Your task to perform on an android device: move an email to a new category in the gmail app Image 0: 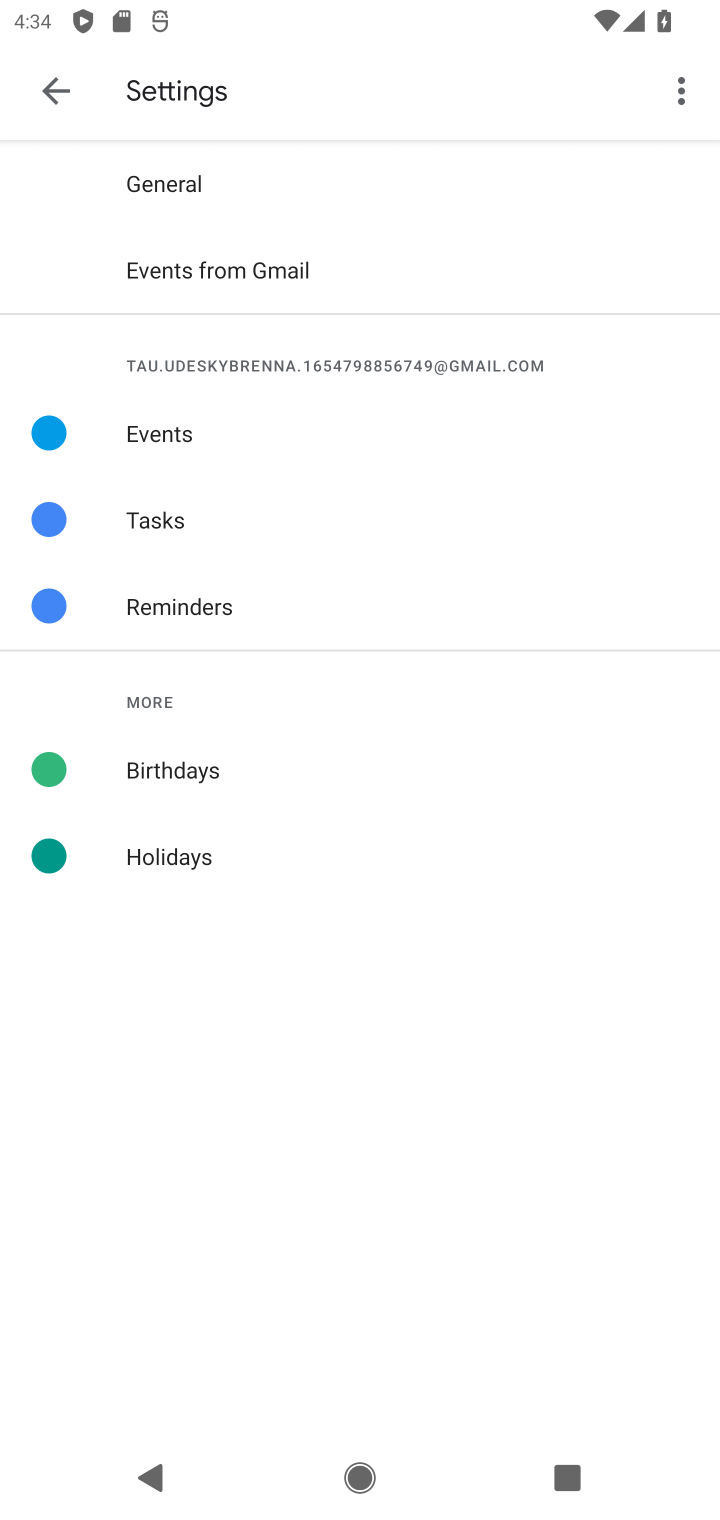
Step 0: press home button
Your task to perform on an android device: move an email to a new category in the gmail app Image 1: 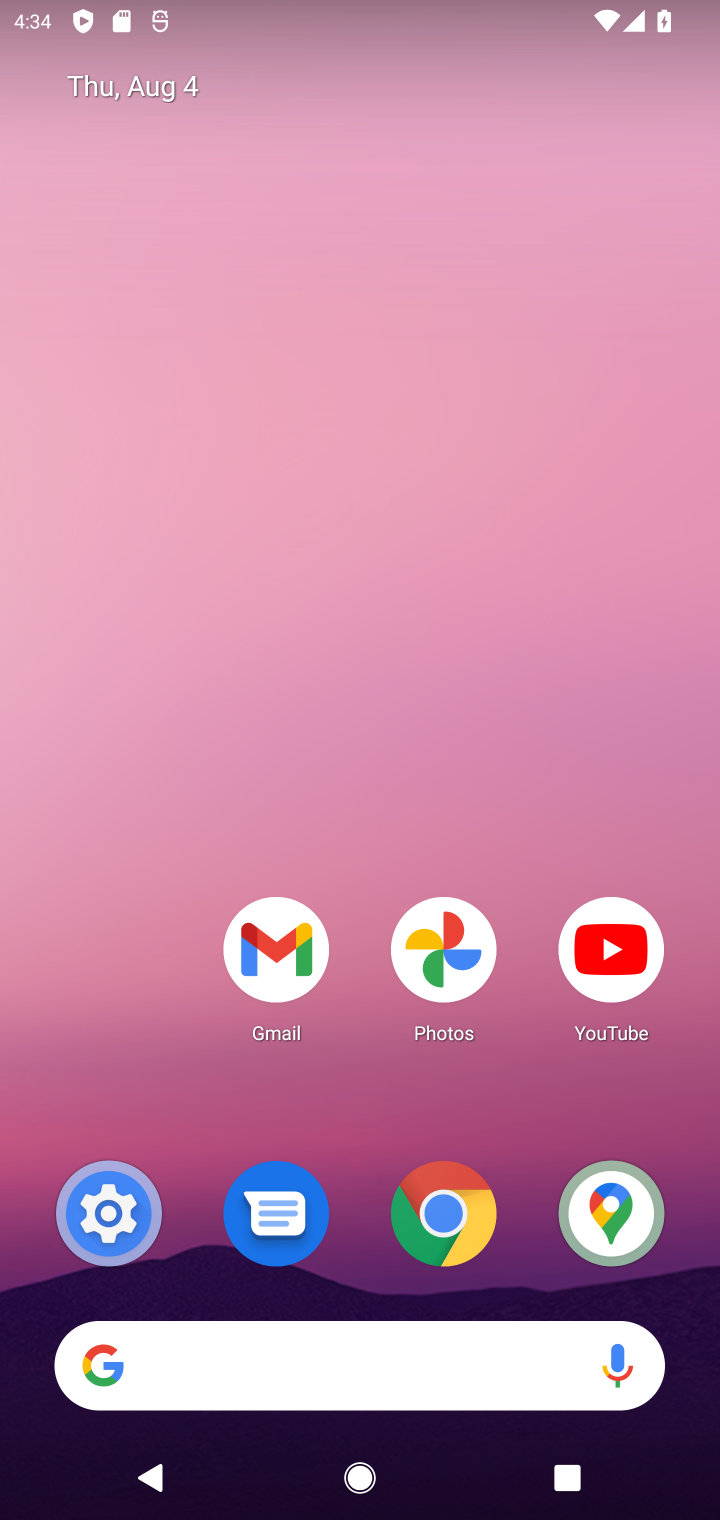
Step 1: drag from (172, 1077) to (169, 493)
Your task to perform on an android device: move an email to a new category in the gmail app Image 2: 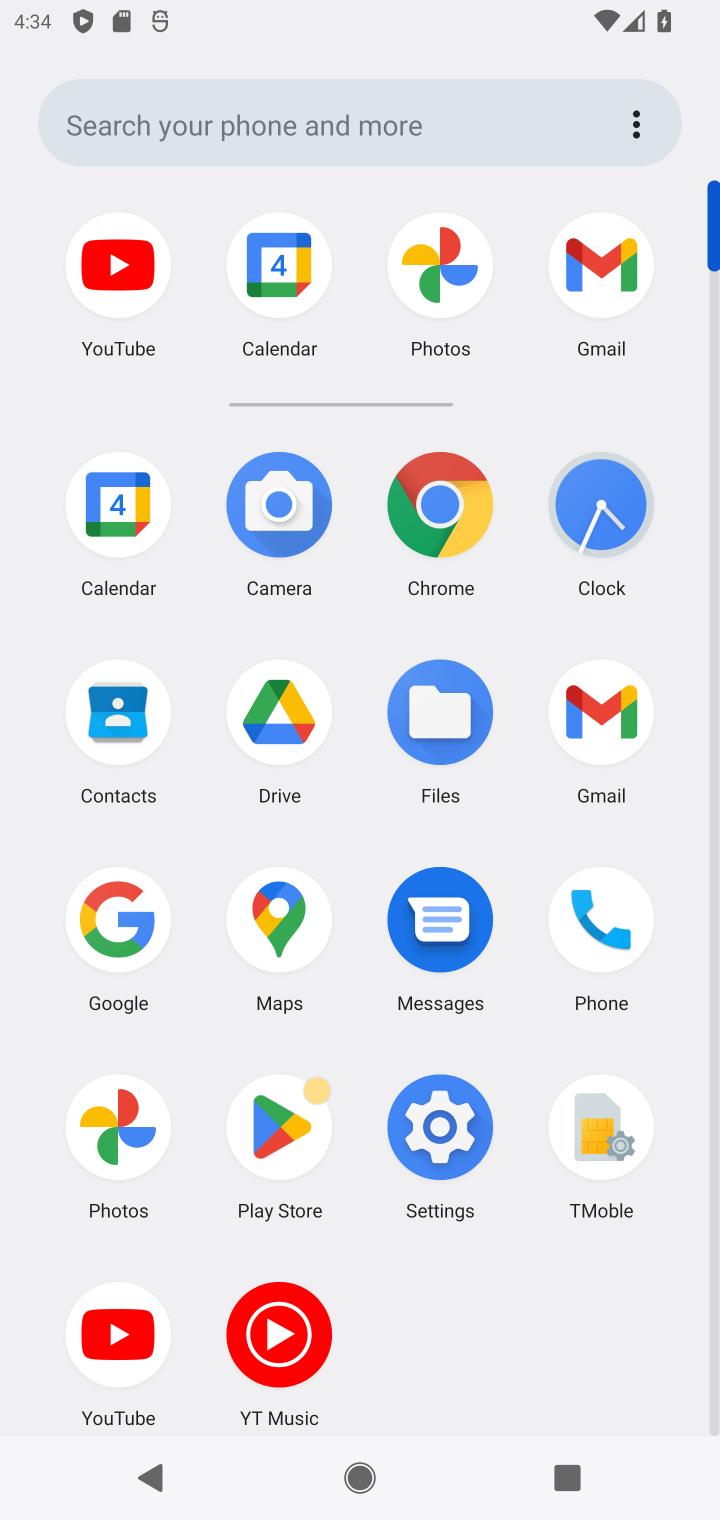
Step 2: click (594, 718)
Your task to perform on an android device: move an email to a new category in the gmail app Image 3: 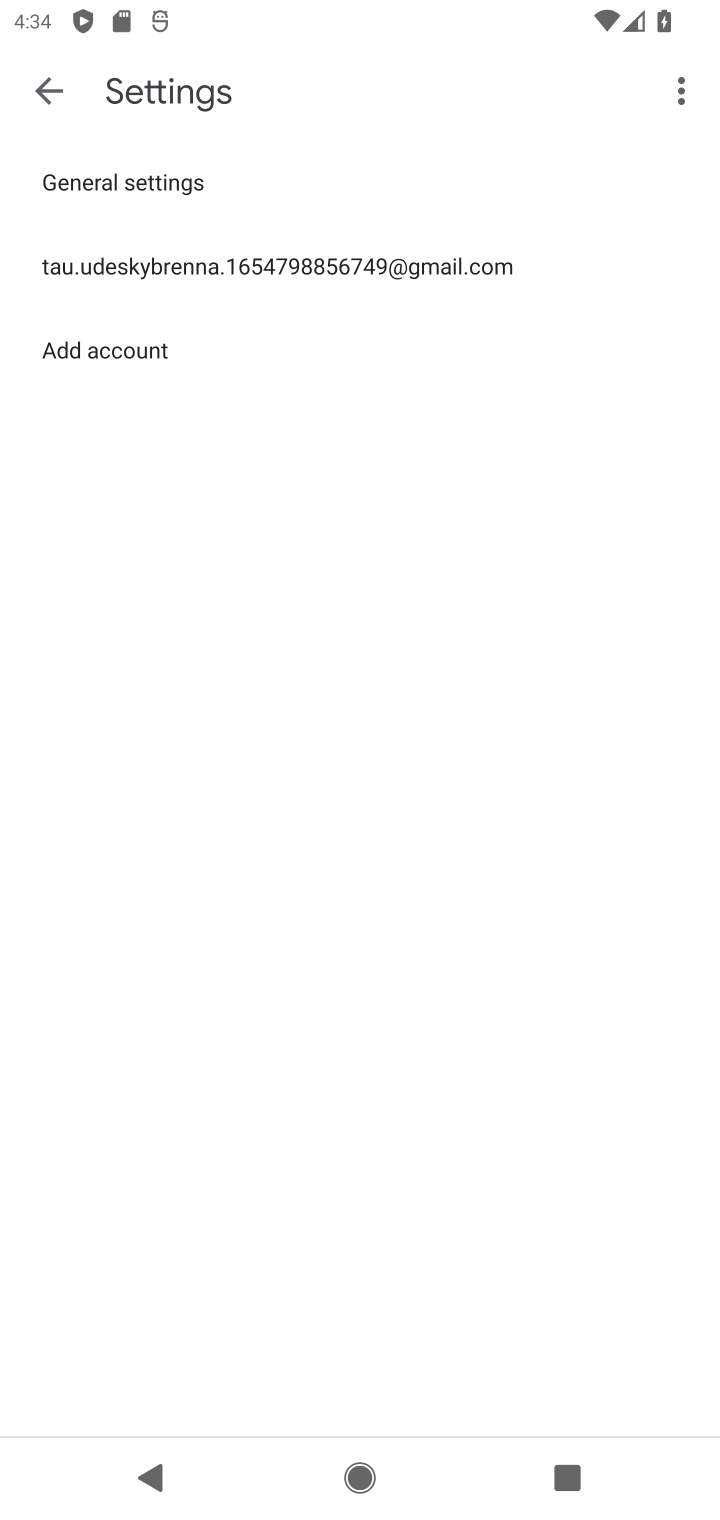
Step 3: press back button
Your task to perform on an android device: move an email to a new category in the gmail app Image 4: 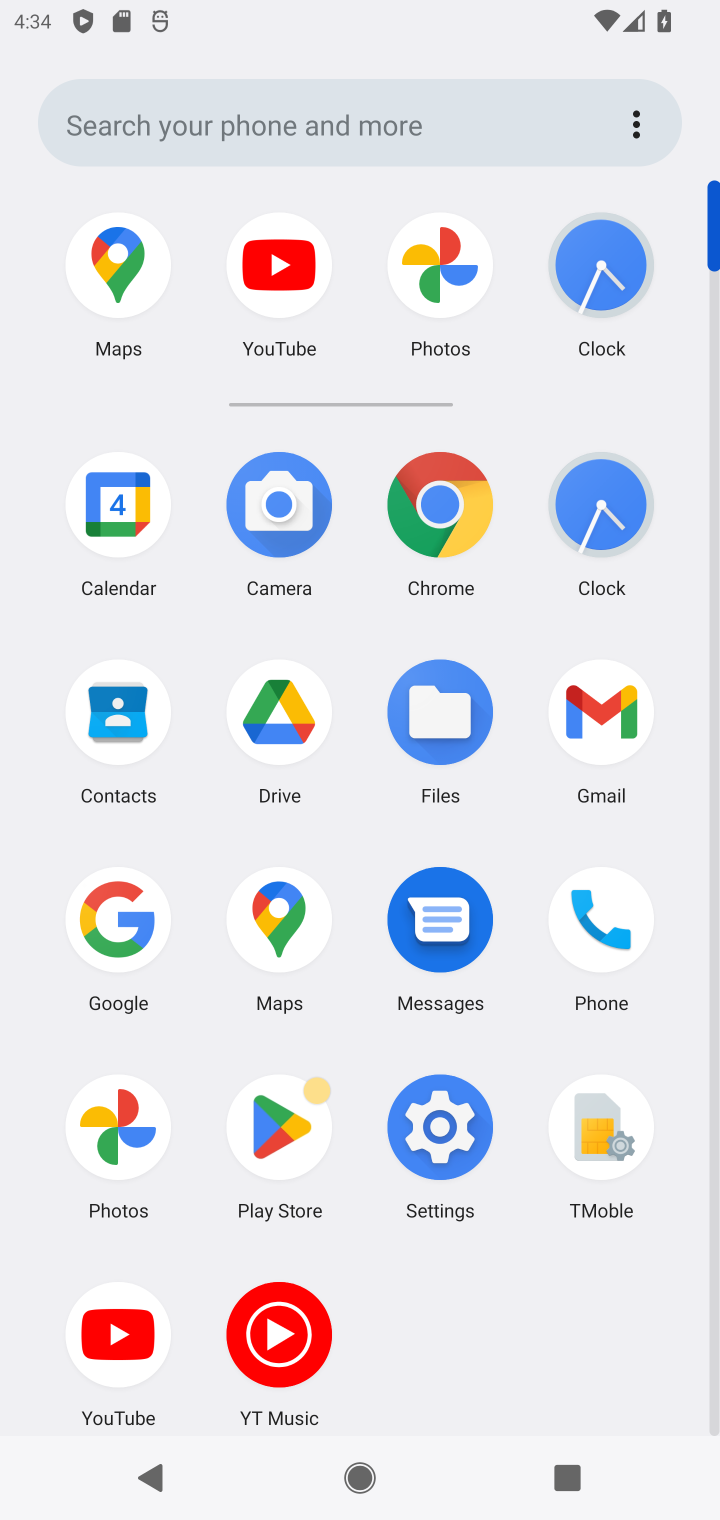
Step 4: click (620, 724)
Your task to perform on an android device: move an email to a new category in the gmail app Image 5: 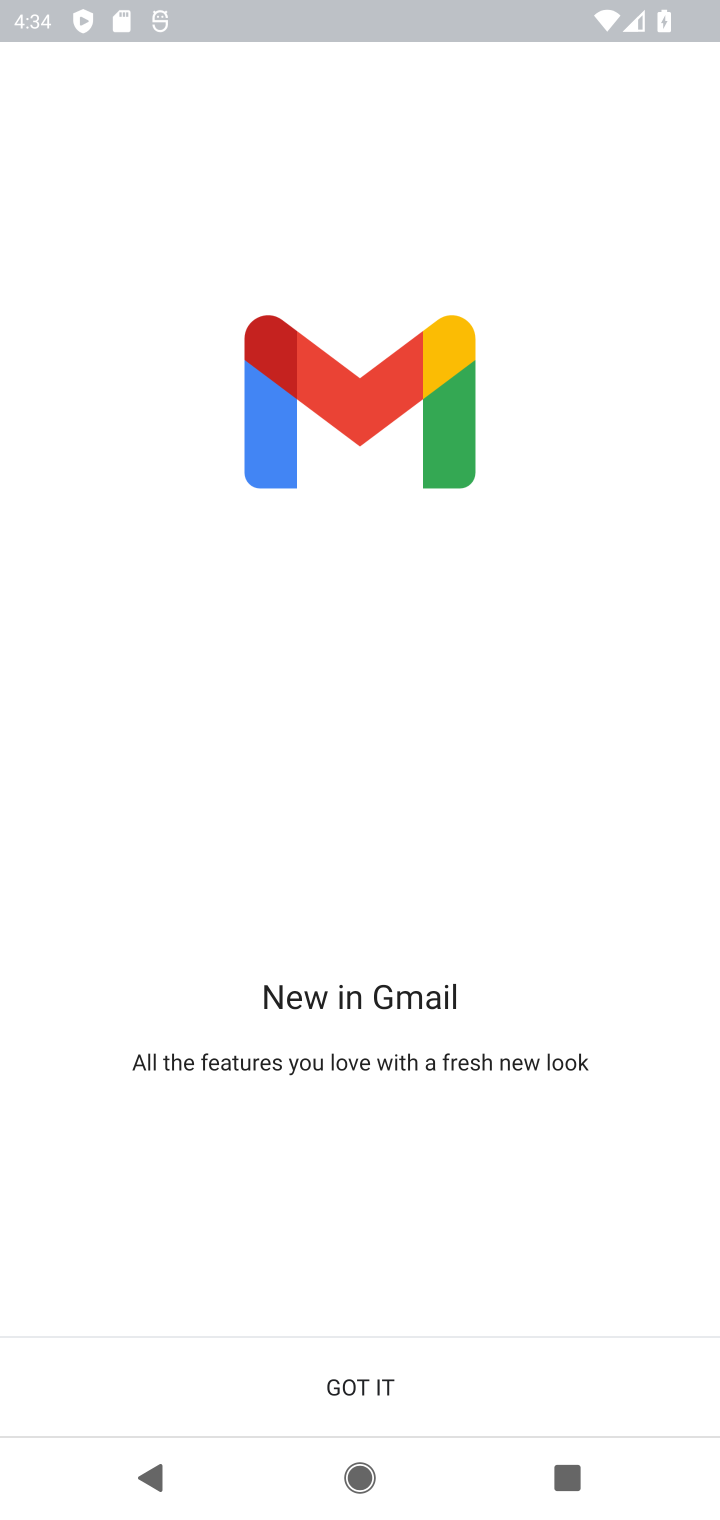
Step 5: click (436, 1374)
Your task to perform on an android device: move an email to a new category in the gmail app Image 6: 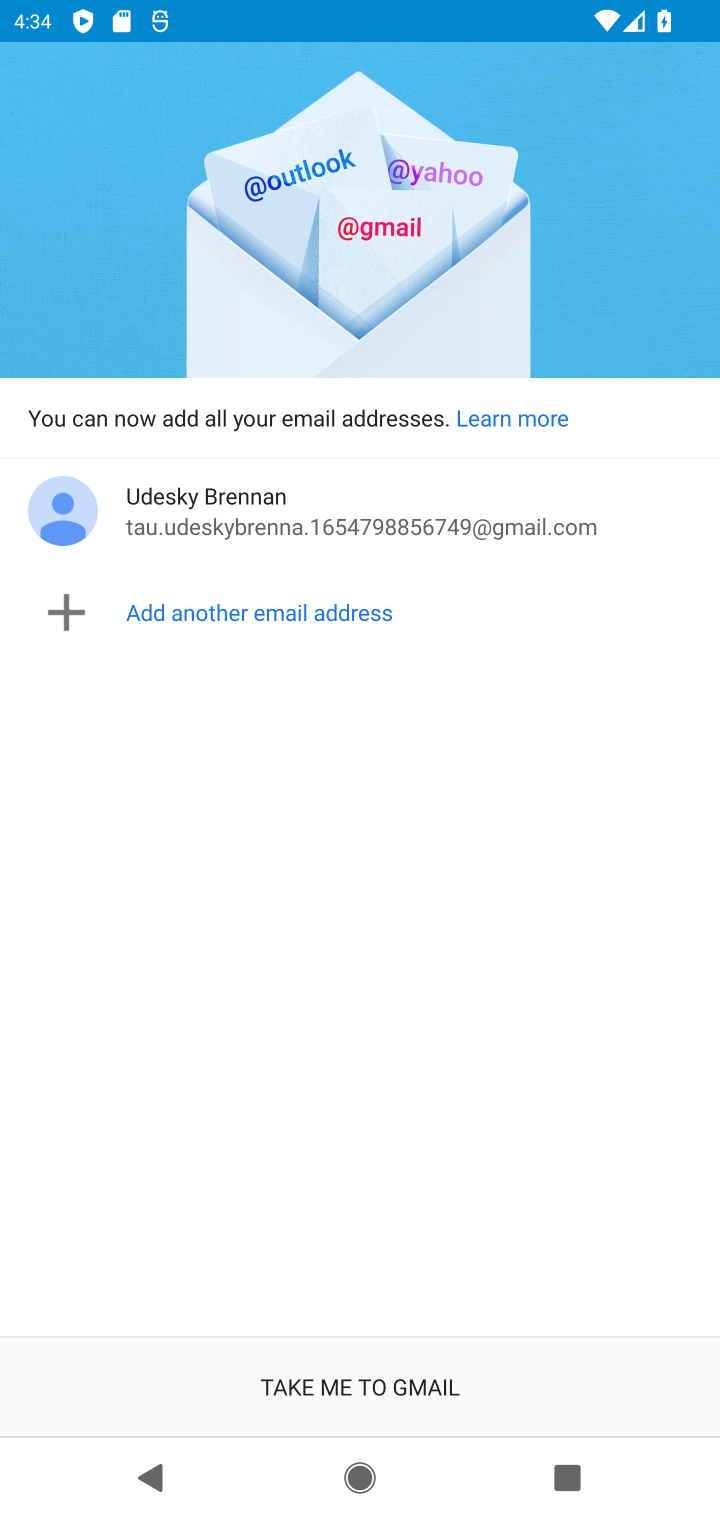
Step 6: click (436, 1374)
Your task to perform on an android device: move an email to a new category in the gmail app Image 7: 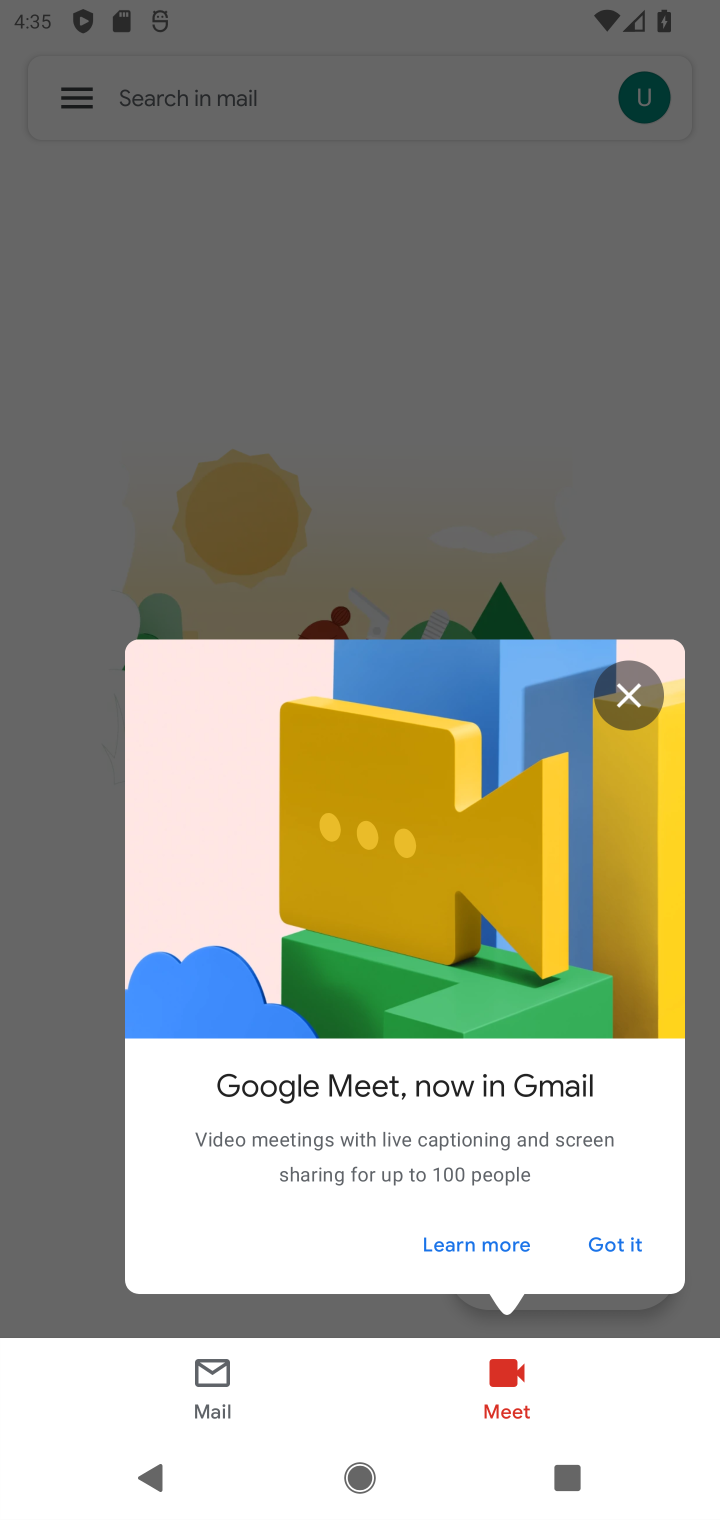
Step 7: click (636, 688)
Your task to perform on an android device: move an email to a new category in the gmail app Image 8: 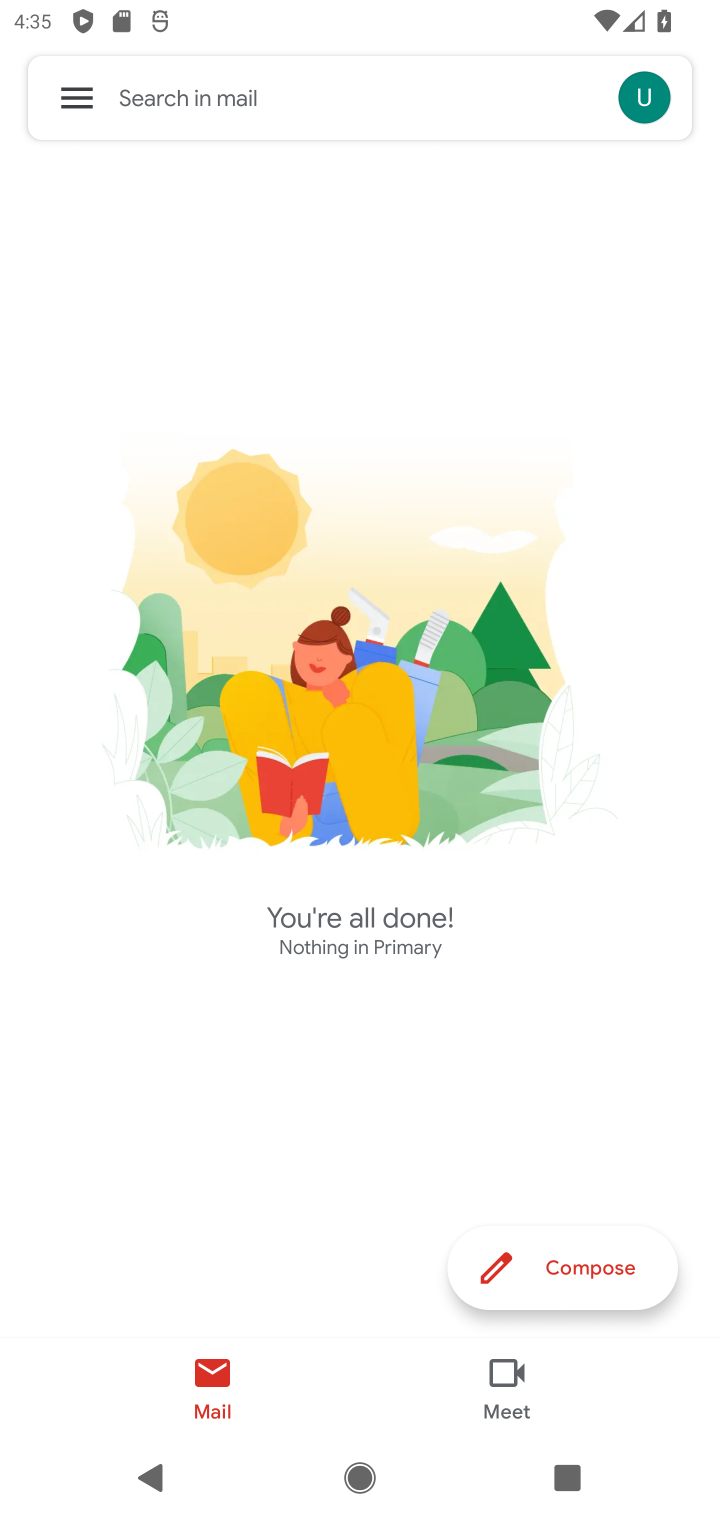
Step 8: task complete